Your task to perform on an android device: change the clock display to digital Image 0: 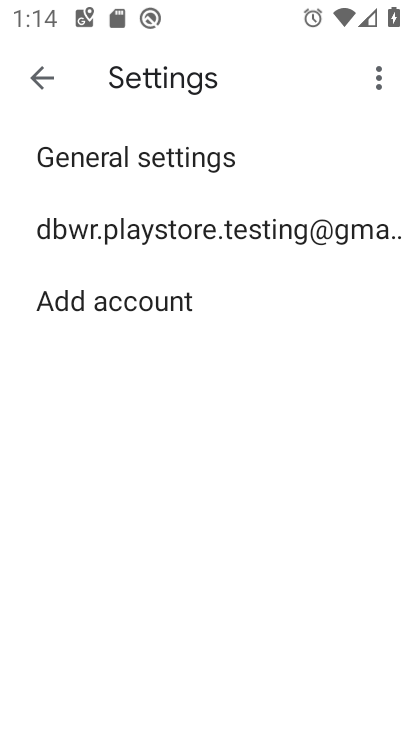
Step 0: press home button
Your task to perform on an android device: change the clock display to digital Image 1: 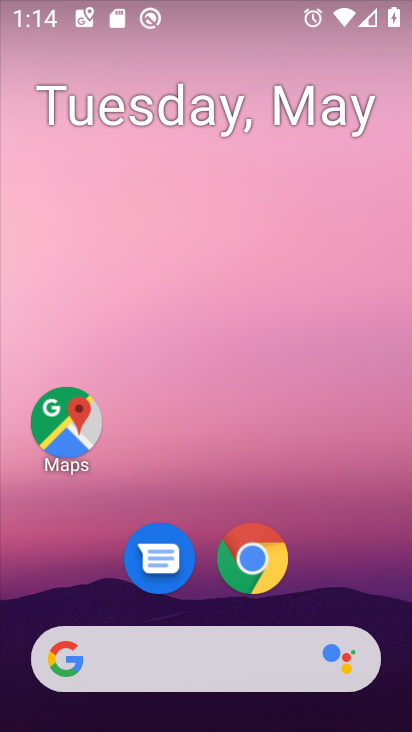
Step 1: drag from (376, 578) to (312, 11)
Your task to perform on an android device: change the clock display to digital Image 2: 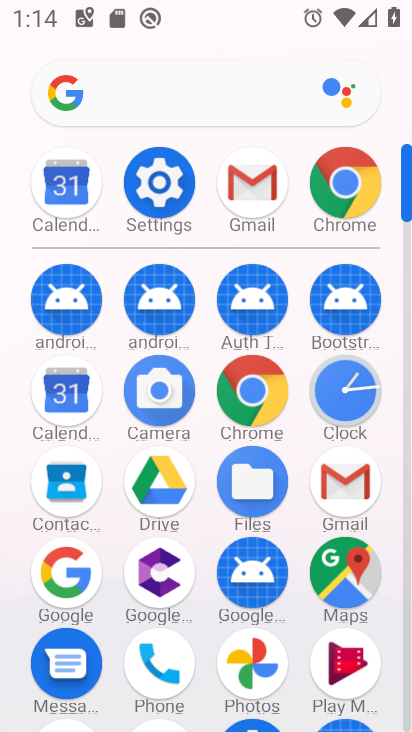
Step 2: click (343, 376)
Your task to perform on an android device: change the clock display to digital Image 3: 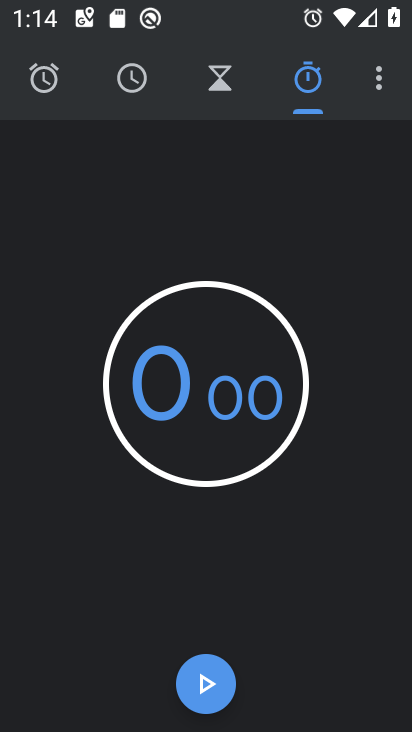
Step 3: click (397, 100)
Your task to perform on an android device: change the clock display to digital Image 4: 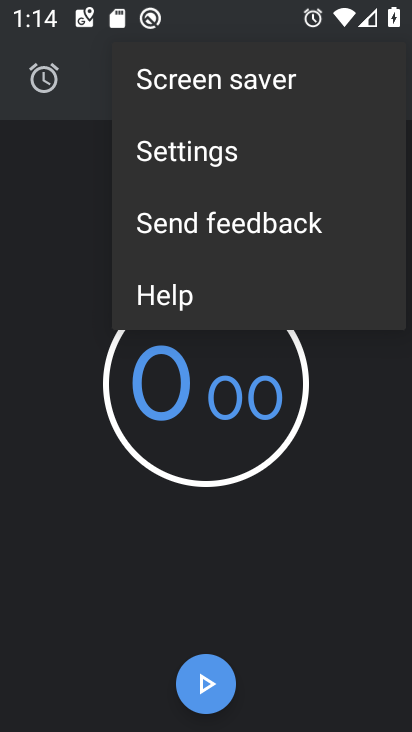
Step 4: click (305, 174)
Your task to perform on an android device: change the clock display to digital Image 5: 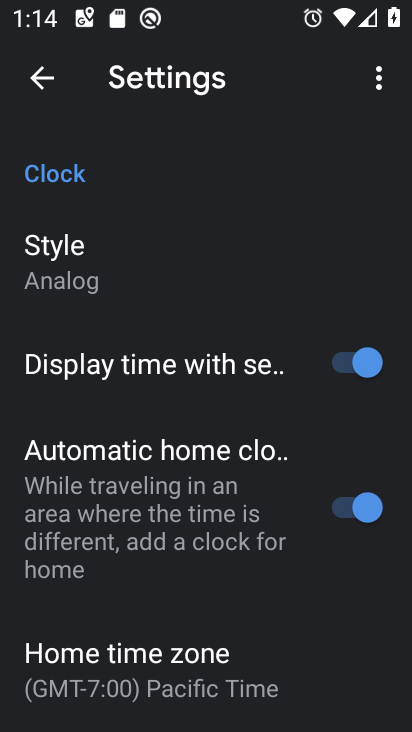
Step 5: click (161, 280)
Your task to perform on an android device: change the clock display to digital Image 6: 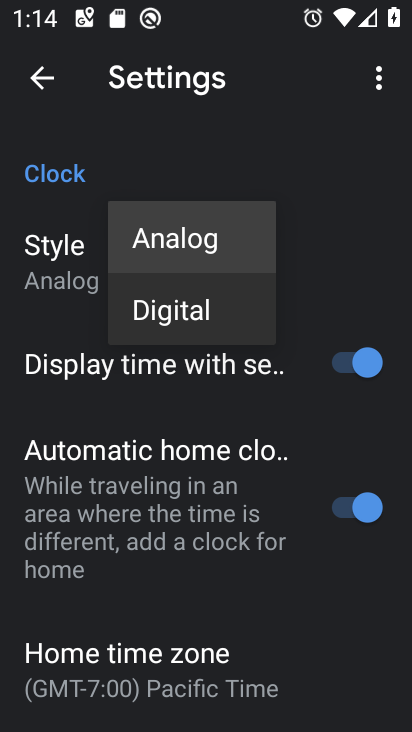
Step 6: click (208, 309)
Your task to perform on an android device: change the clock display to digital Image 7: 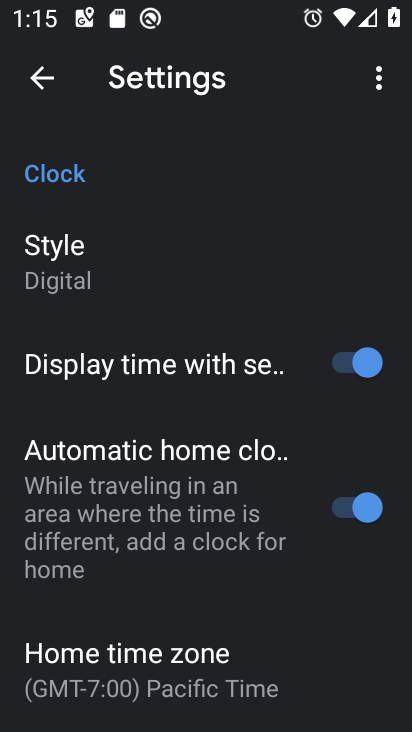
Step 7: task complete